Your task to perform on an android device: Open the calendar app, open the side menu, and click the "Day" option Image 0: 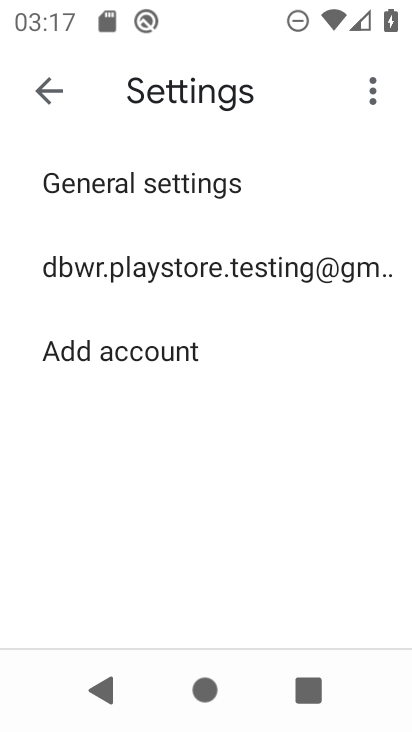
Step 0: press home button
Your task to perform on an android device: Open the calendar app, open the side menu, and click the "Day" option Image 1: 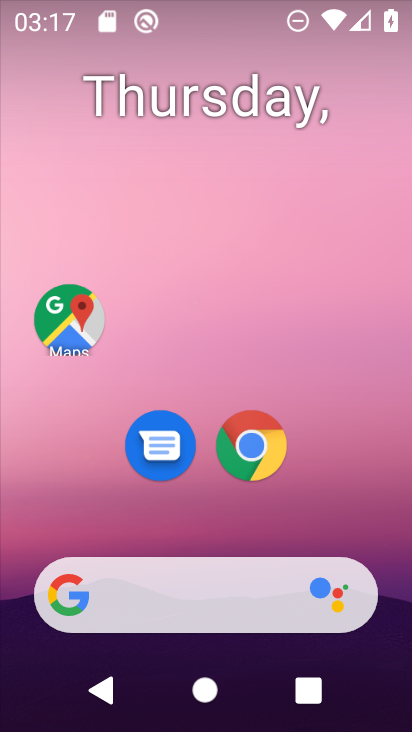
Step 1: drag from (352, 549) to (328, 22)
Your task to perform on an android device: Open the calendar app, open the side menu, and click the "Day" option Image 2: 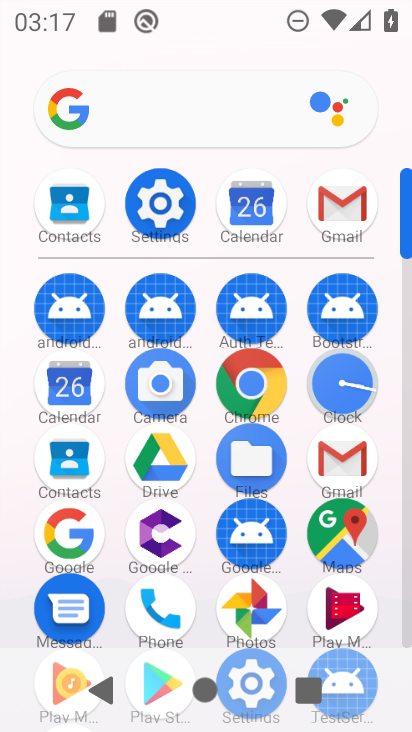
Step 2: click (245, 202)
Your task to perform on an android device: Open the calendar app, open the side menu, and click the "Day" option Image 3: 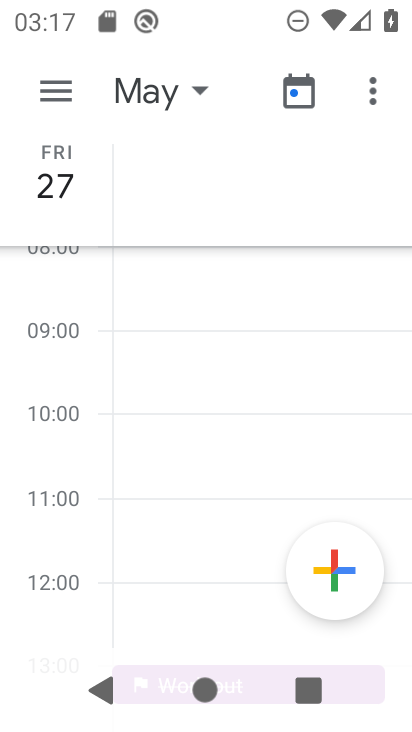
Step 3: click (56, 92)
Your task to perform on an android device: Open the calendar app, open the side menu, and click the "Day" option Image 4: 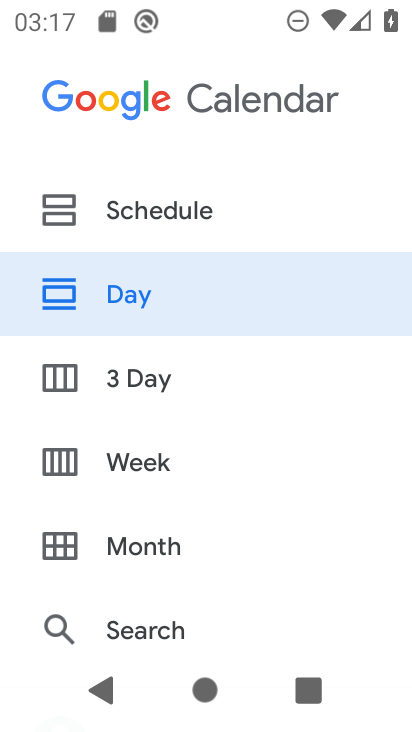
Step 4: click (122, 305)
Your task to perform on an android device: Open the calendar app, open the side menu, and click the "Day" option Image 5: 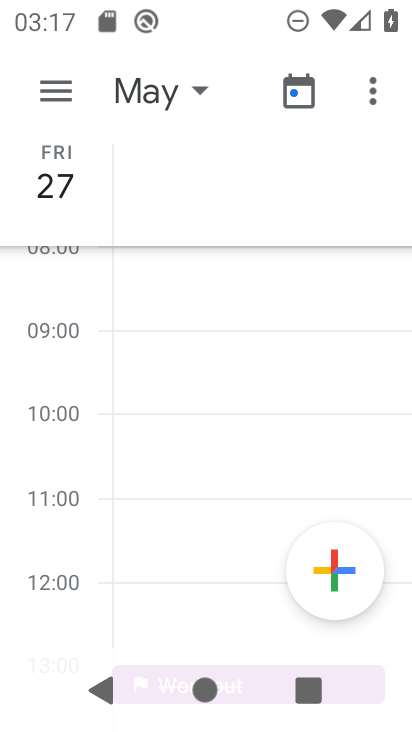
Step 5: task complete